Your task to perform on an android device: install app "HBO Max: Stream TV & Movies" Image 0: 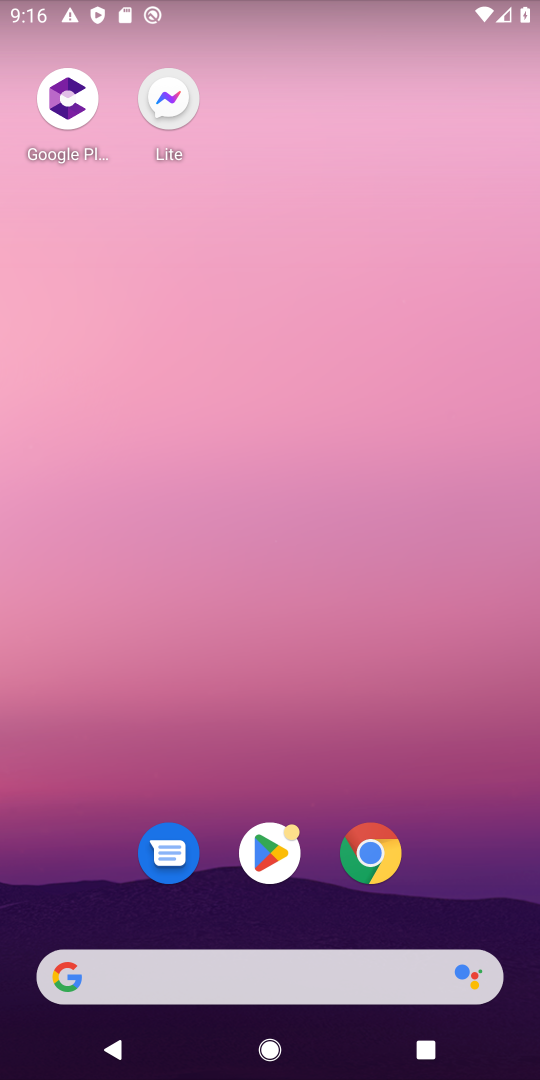
Step 0: click (274, 853)
Your task to perform on an android device: install app "HBO Max: Stream TV & Movies" Image 1: 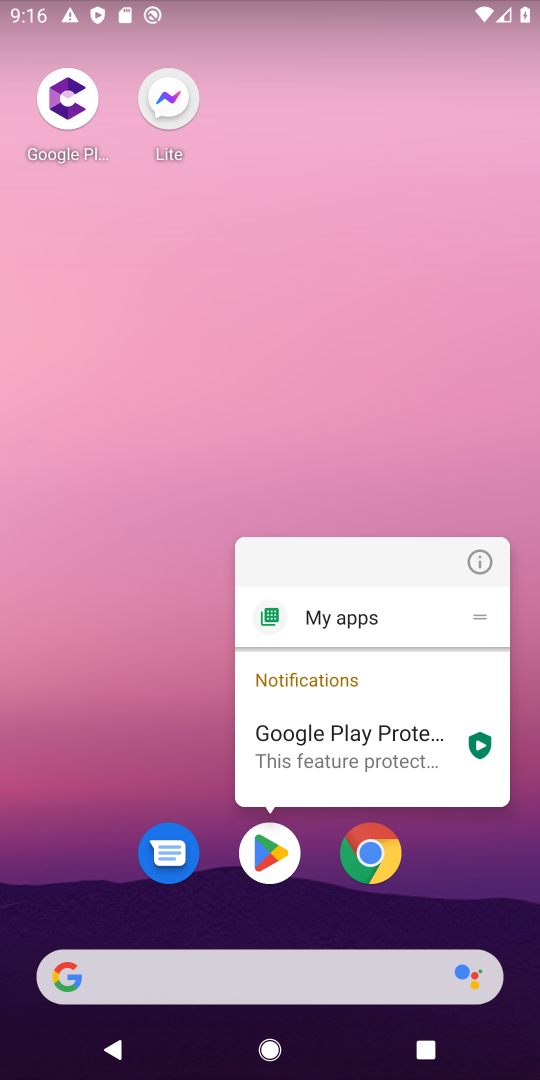
Step 1: click (261, 848)
Your task to perform on an android device: install app "HBO Max: Stream TV & Movies" Image 2: 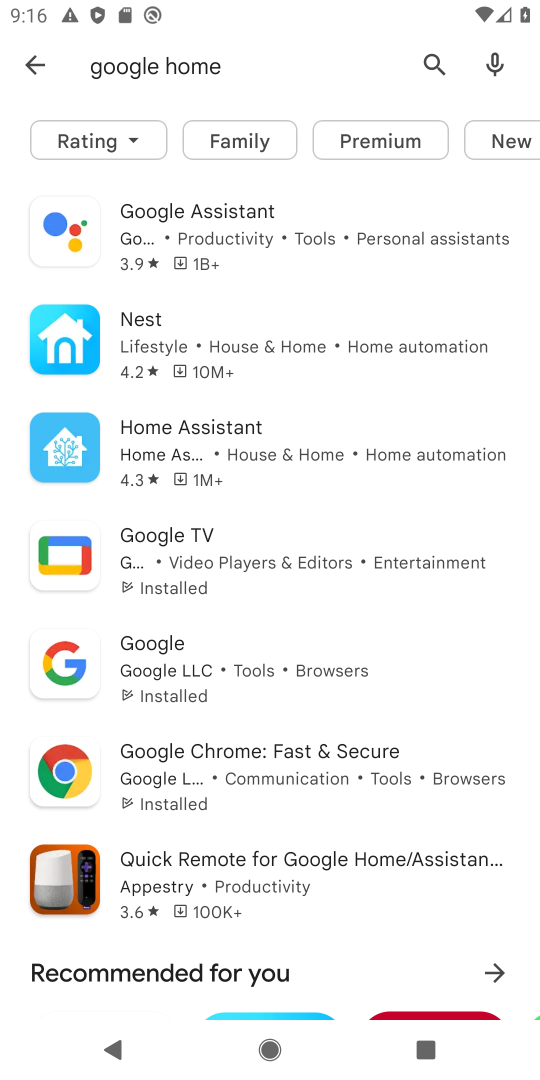
Step 2: click (434, 68)
Your task to perform on an android device: install app "HBO Max: Stream TV & Movies" Image 3: 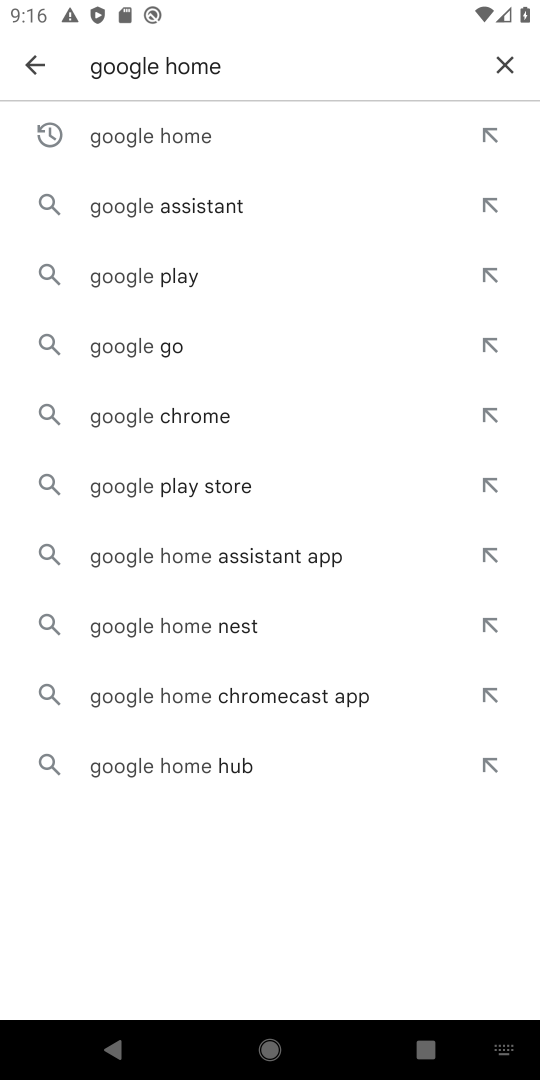
Step 3: click (515, 55)
Your task to perform on an android device: install app "HBO Max: Stream TV & Movies" Image 4: 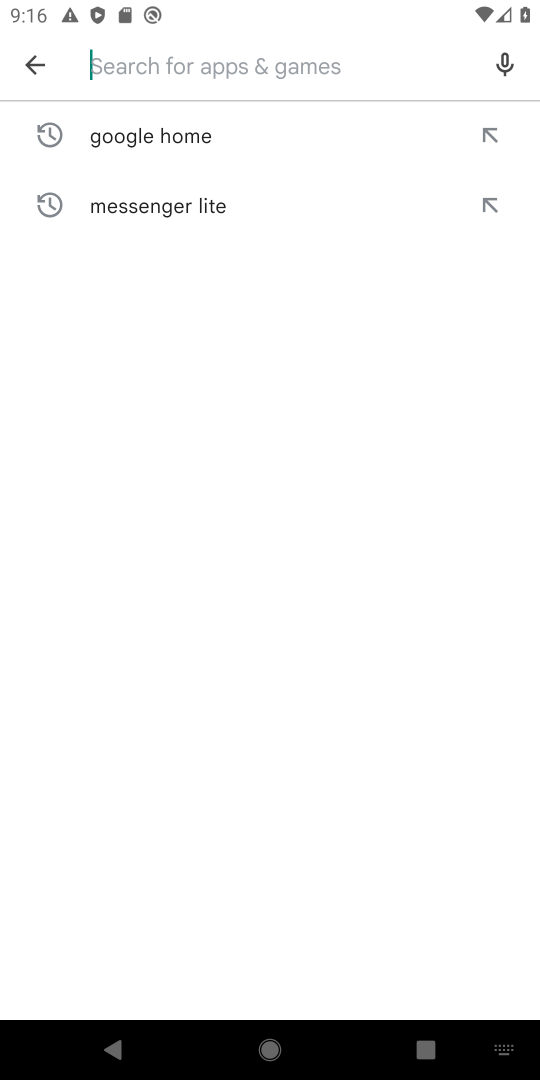
Step 4: type "HBO Max: Stream TV & Movies"
Your task to perform on an android device: install app "HBO Max: Stream TV & Movies" Image 5: 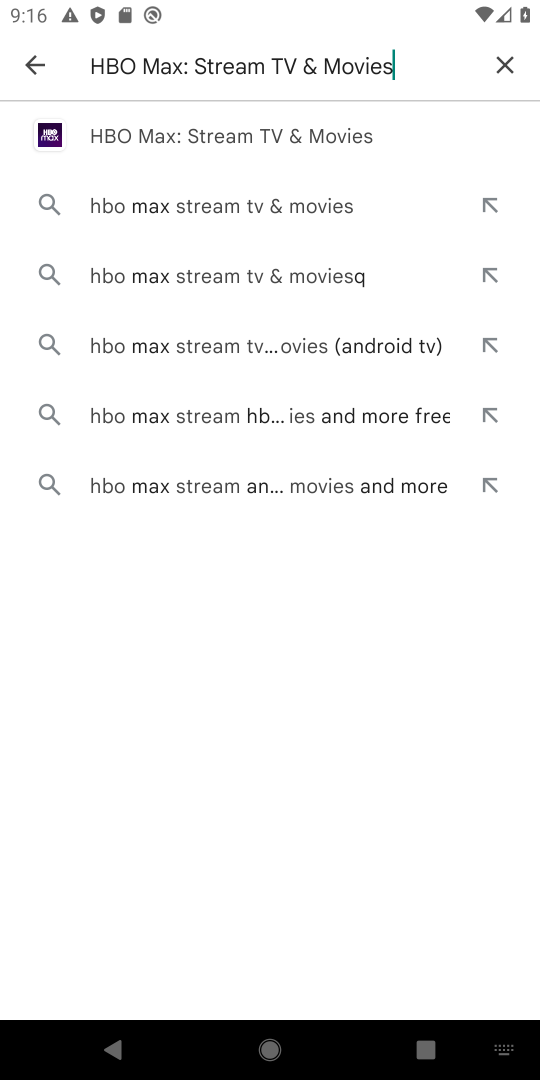
Step 5: click (164, 132)
Your task to perform on an android device: install app "HBO Max: Stream TV & Movies" Image 6: 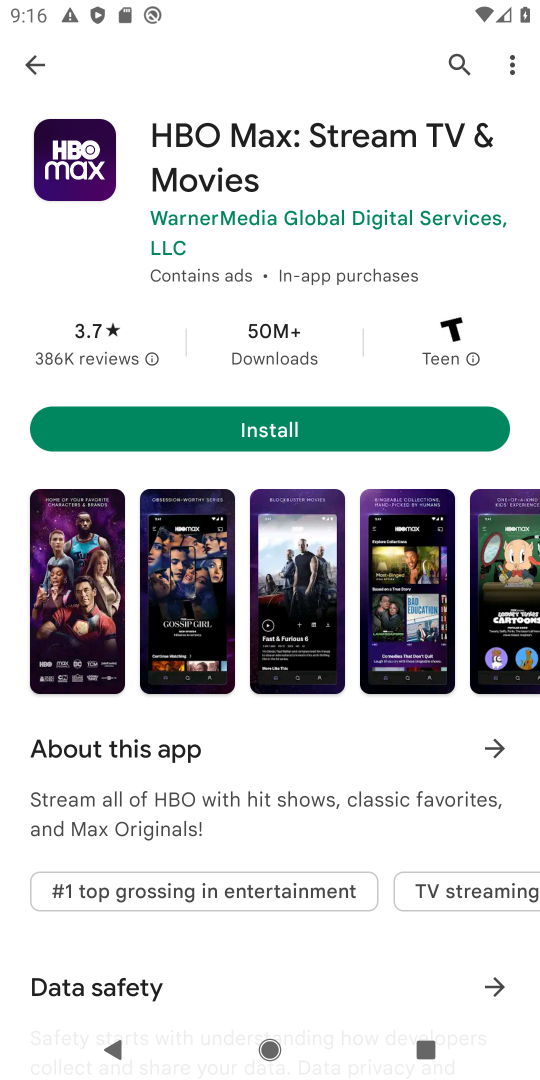
Step 6: click (263, 429)
Your task to perform on an android device: install app "HBO Max: Stream TV & Movies" Image 7: 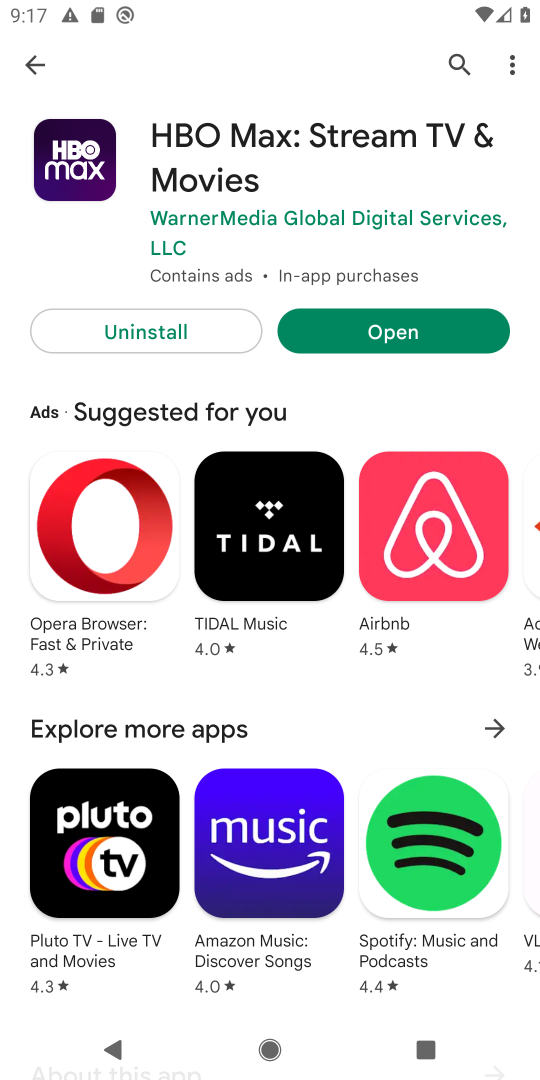
Step 7: task complete